Your task to perform on an android device: Open network settings Image 0: 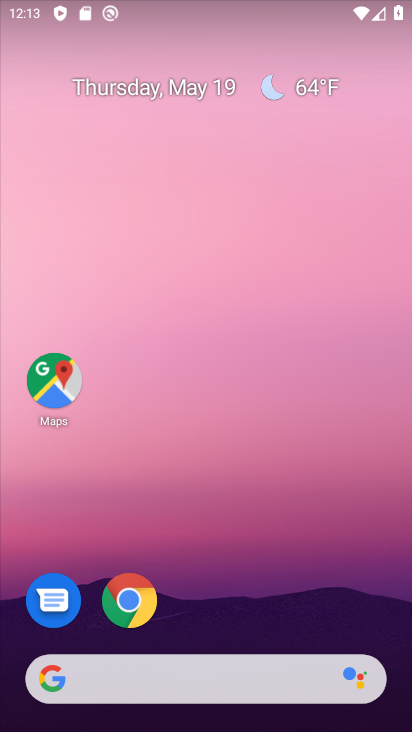
Step 0: drag from (218, 670) to (230, 6)
Your task to perform on an android device: Open network settings Image 1: 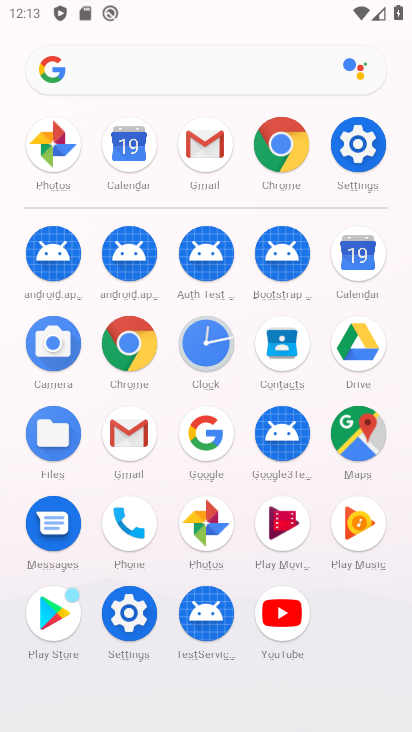
Step 1: click (361, 132)
Your task to perform on an android device: Open network settings Image 2: 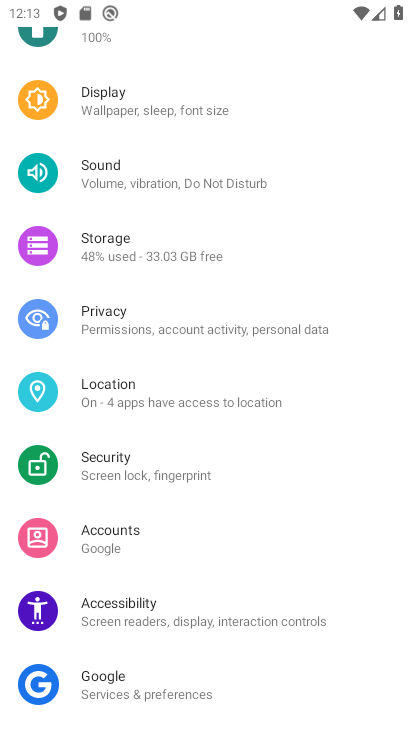
Step 2: drag from (276, 153) to (246, 653)
Your task to perform on an android device: Open network settings Image 3: 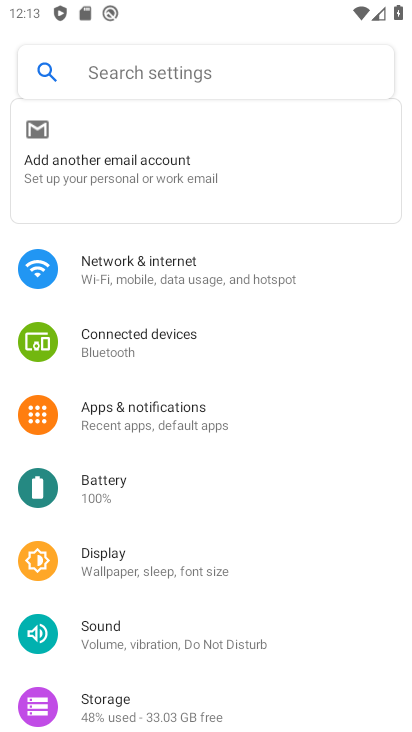
Step 3: click (179, 268)
Your task to perform on an android device: Open network settings Image 4: 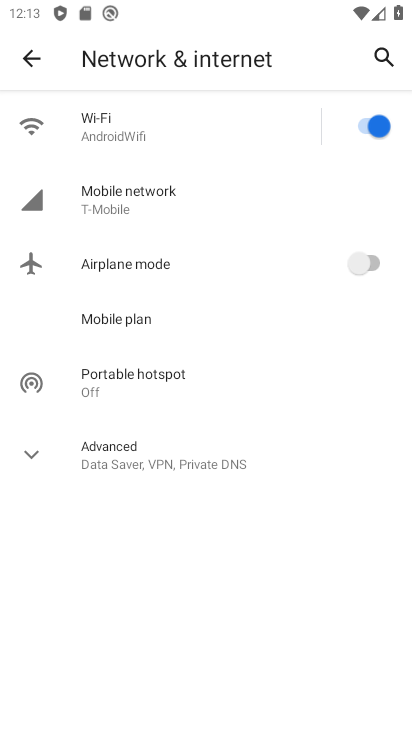
Step 4: click (134, 206)
Your task to perform on an android device: Open network settings Image 5: 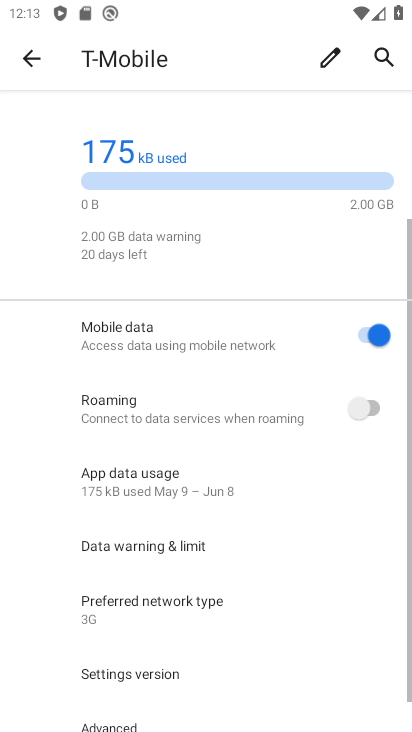
Step 5: task complete